Your task to perform on an android device: Clear the cart on ebay. Add usb-a to usb-b to the cart on ebay, then select checkout. Image 0: 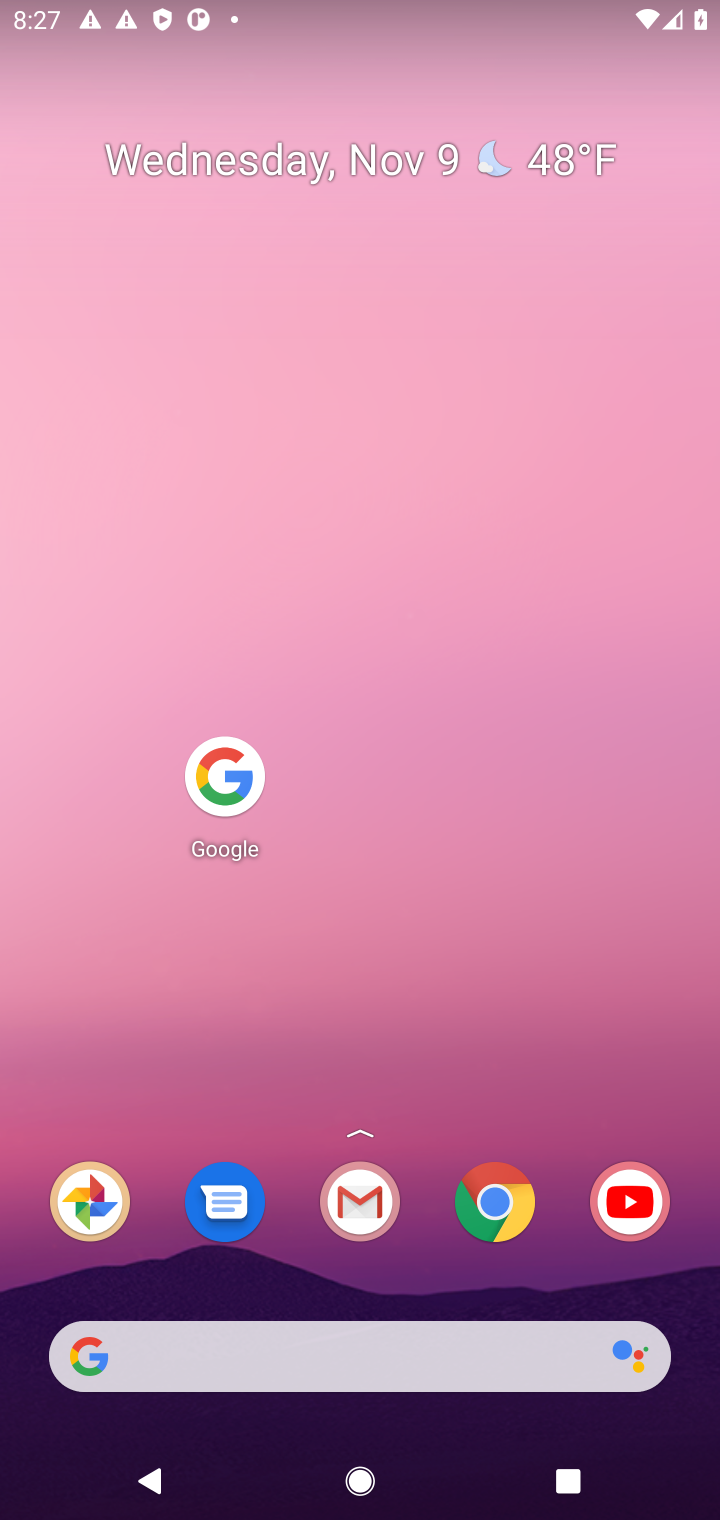
Step 0: click (207, 759)
Your task to perform on an android device: Clear the cart on ebay. Add usb-a to usb-b to the cart on ebay, then select checkout. Image 1: 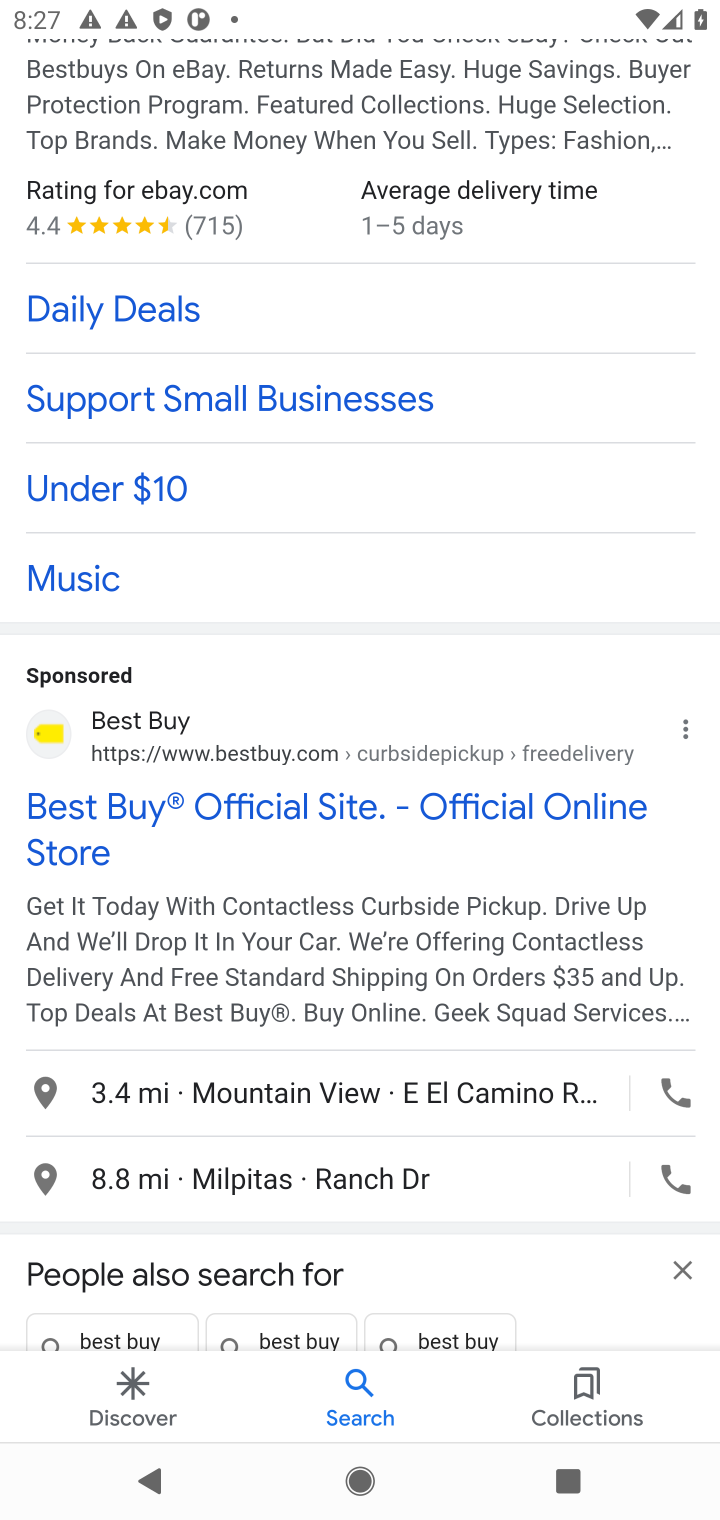
Step 1: drag from (545, 405) to (482, 1307)
Your task to perform on an android device: Clear the cart on ebay. Add usb-a to usb-b to the cart on ebay, then select checkout. Image 2: 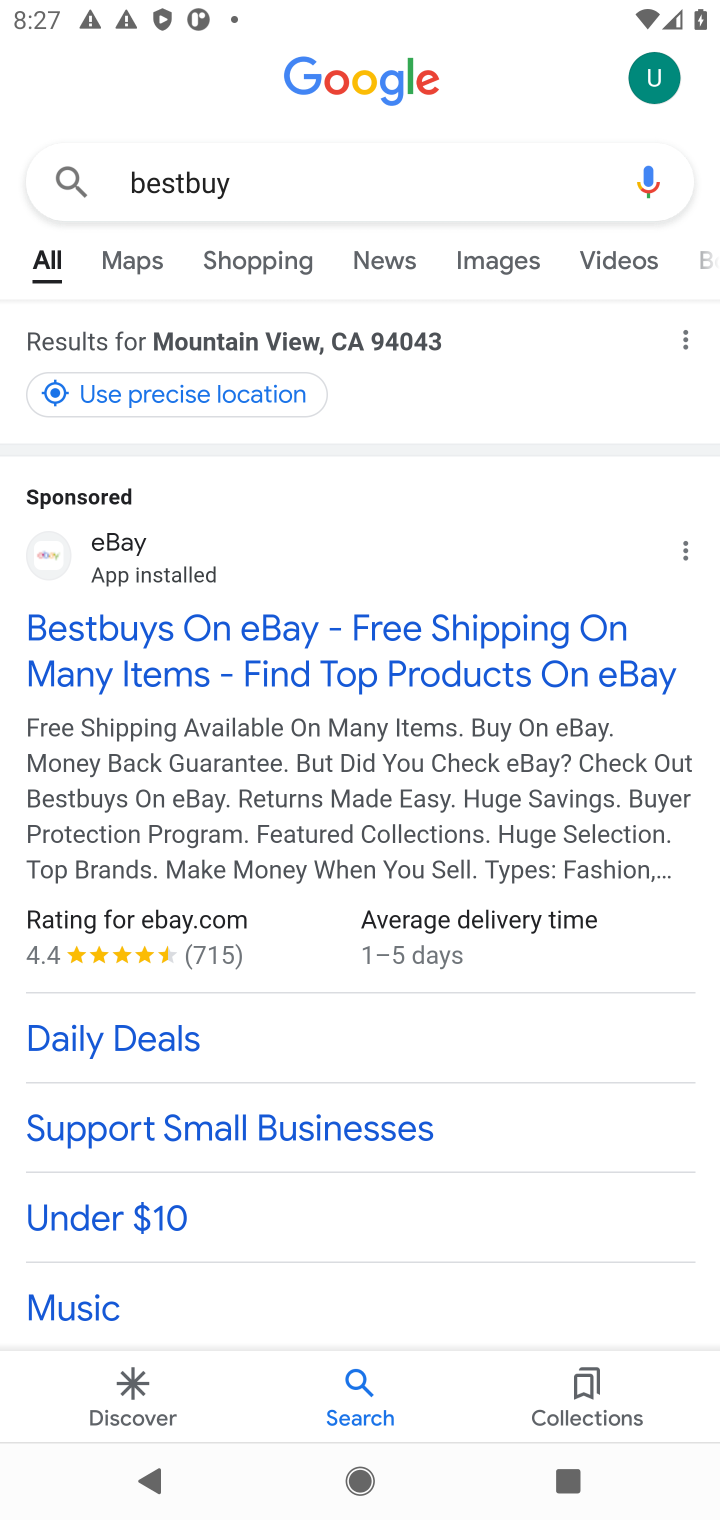
Step 2: click (241, 181)
Your task to perform on an android device: Clear the cart on ebay. Add usb-a to usb-b to the cart on ebay, then select checkout. Image 3: 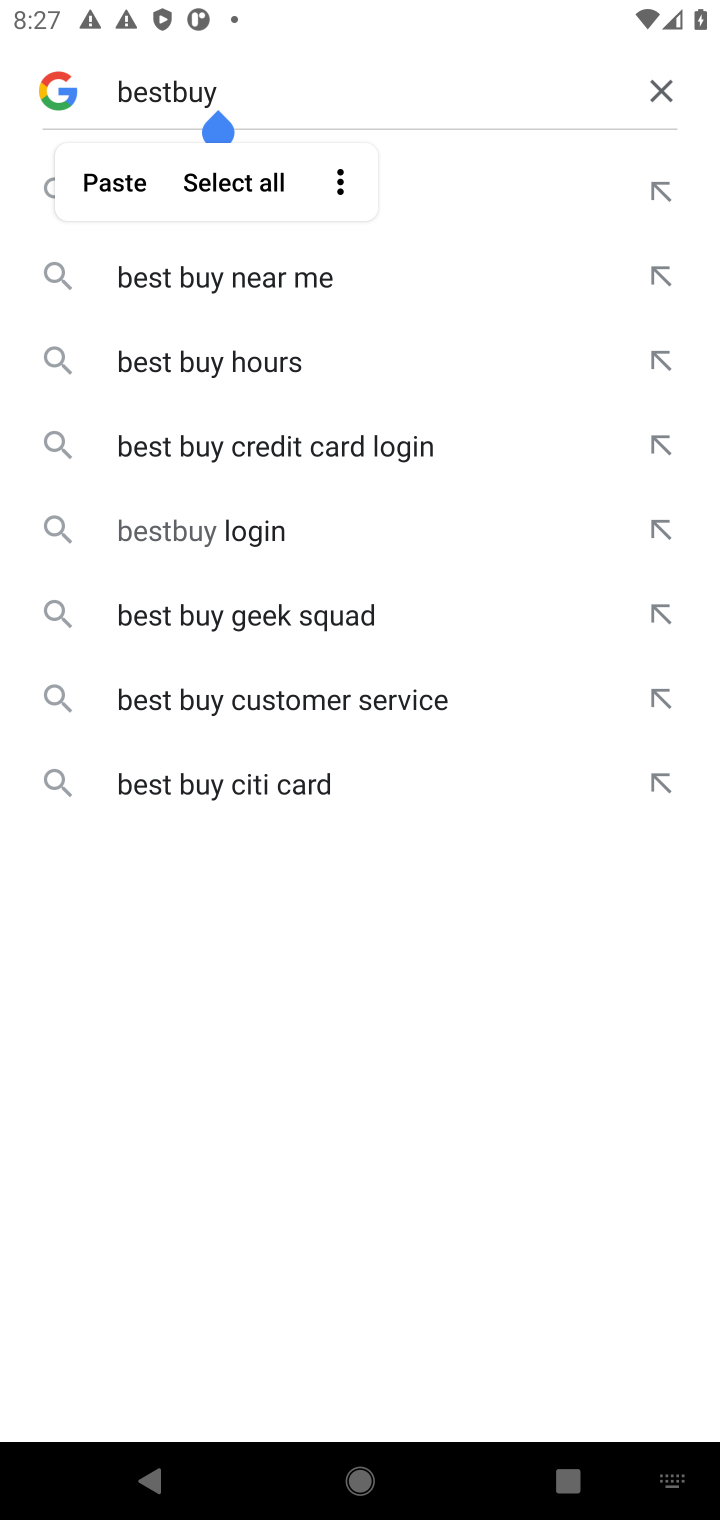
Step 3: click (663, 88)
Your task to perform on an android device: Clear the cart on ebay. Add usb-a to usb-b to the cart on ebay, then select checkout. Image 4: 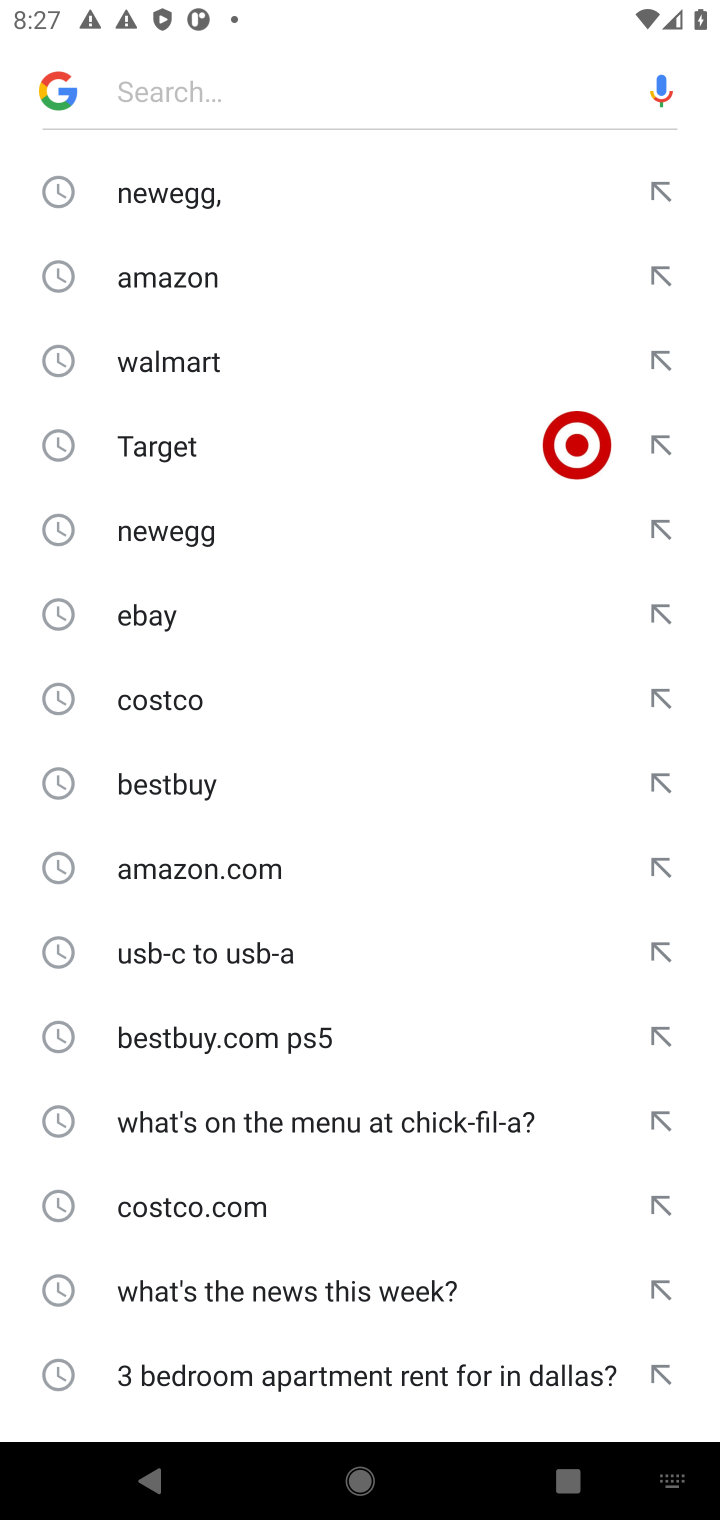
Step 4: click (144, 611)
Your task to perform on an android device: Clear the cart on ebay. Add usb-a to usb-b to the cart on ebay, then select checkout. Image 5: 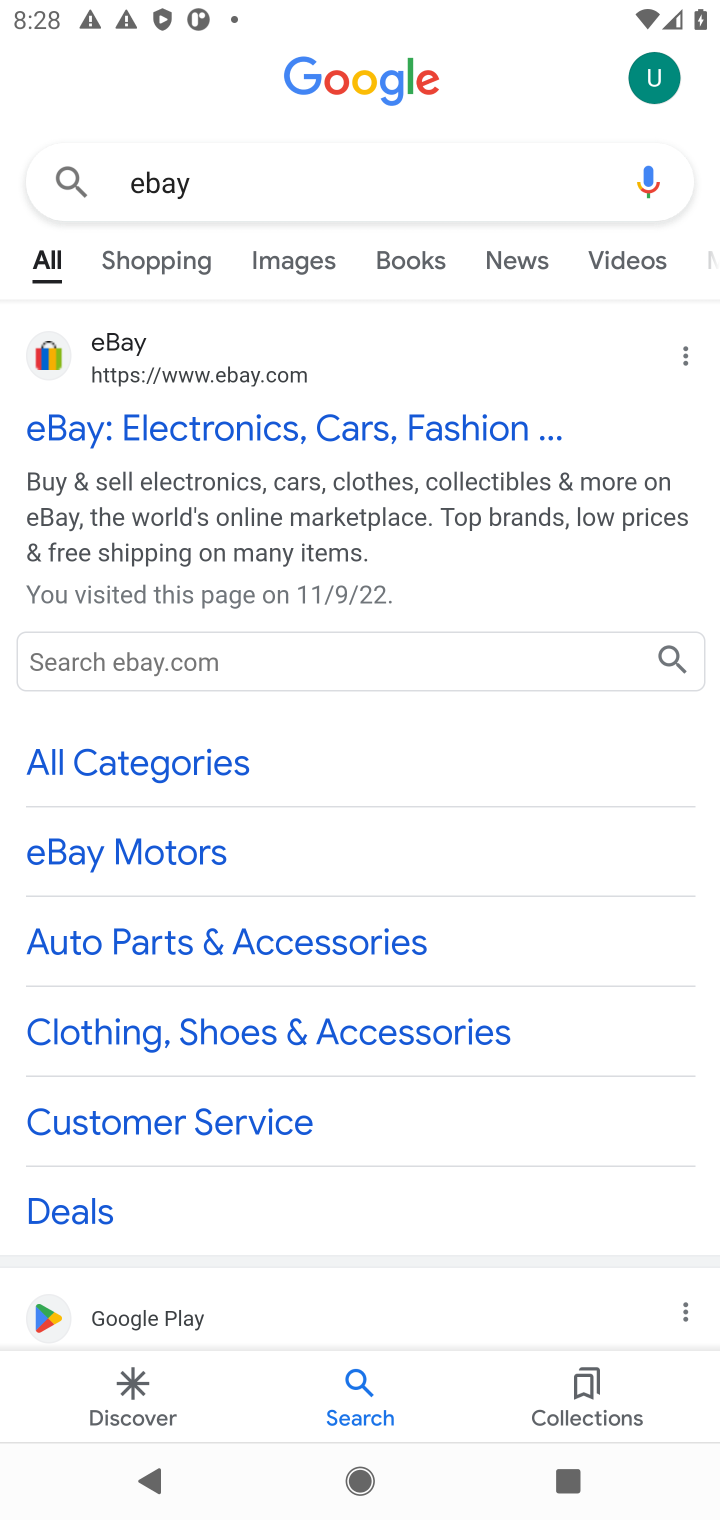
Step 5: click (226, 427)
Your task to perform on an android device: Clear the cart on ebay. Add usb-a to usb-b to the cart on ebay, then select checkout. Image 6: 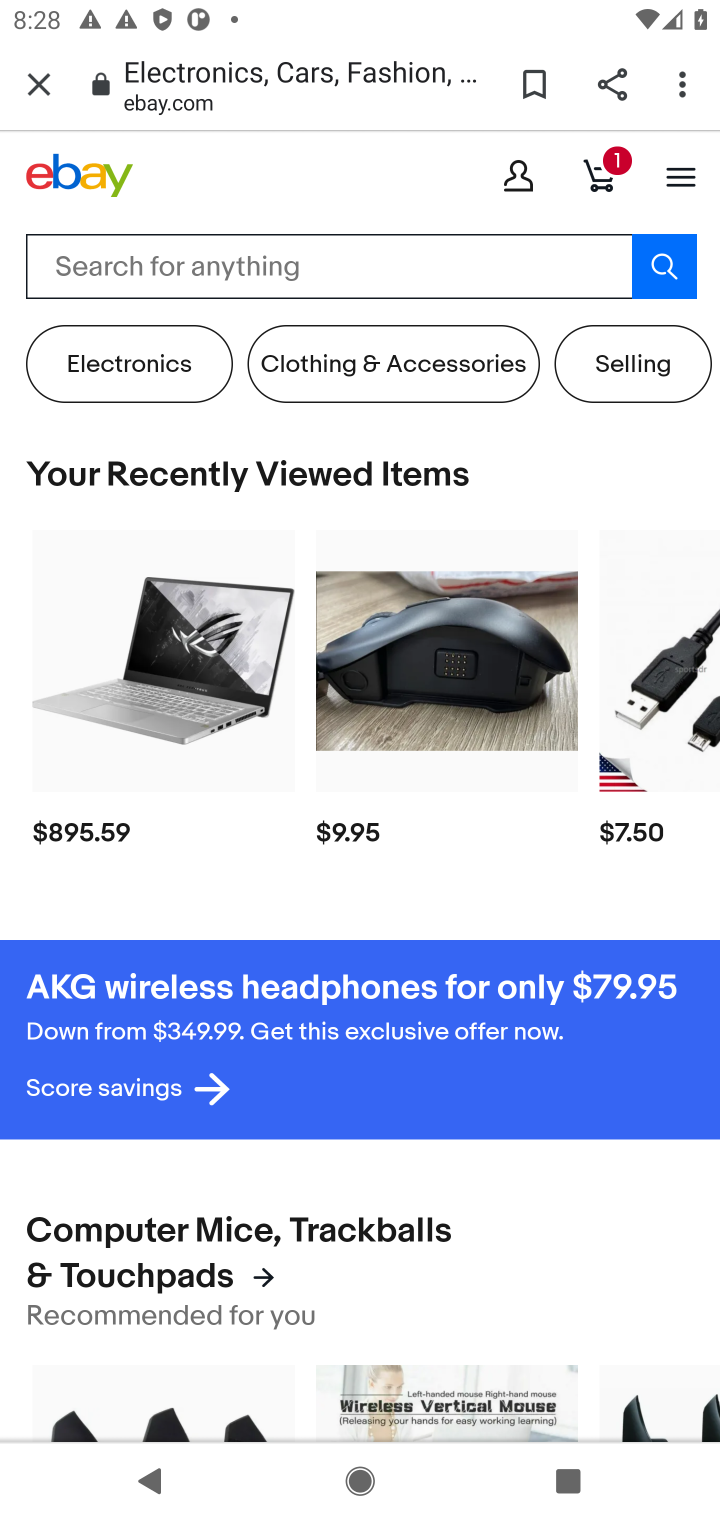
Step 6: click (168, 275)
Your task to perform on an android device: Clear the cart on ebay. Add usb-a to usb-b to the cart on ebay, then select checkout. Image 7: 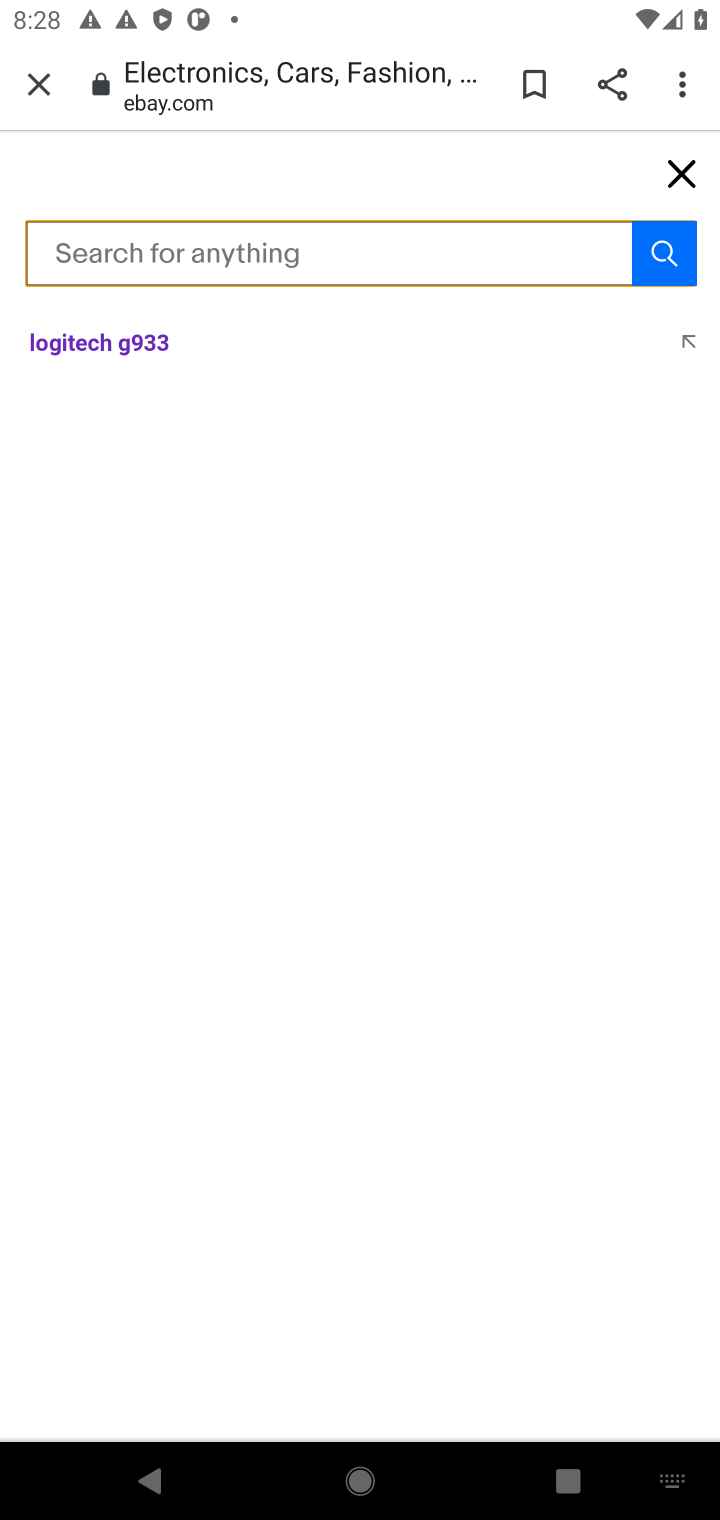
Step 7: type " usb-a to usb-b"
Your task to perform on an android device: Clear the cart on ebay. Add usb-a to usb-b to the cart on ebay, then select checkout. Image 8: 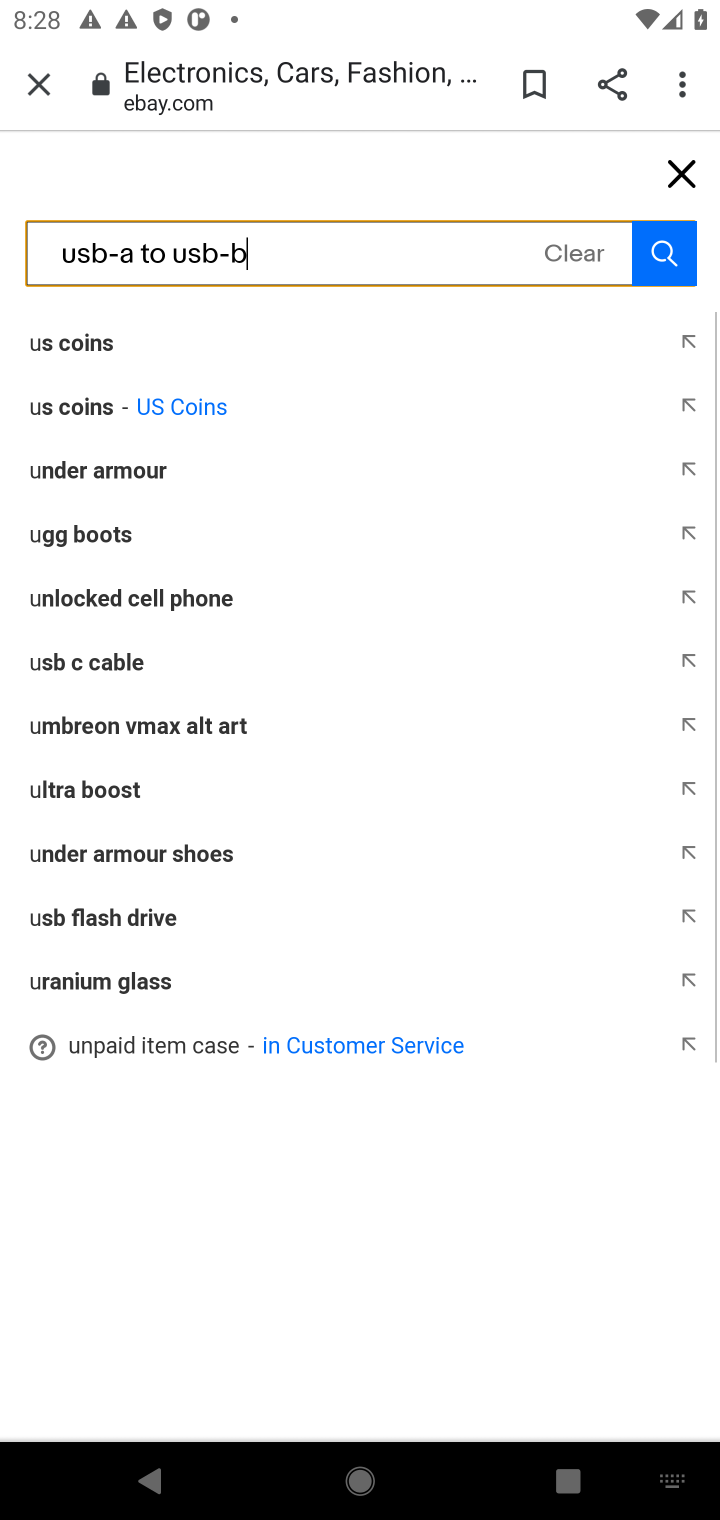
Step 8: press enter
Your task to perform on an android device: Clear the cart on ebay. Add usb-a to usb-b to the cart on ebay, then select checkout. Image 9: 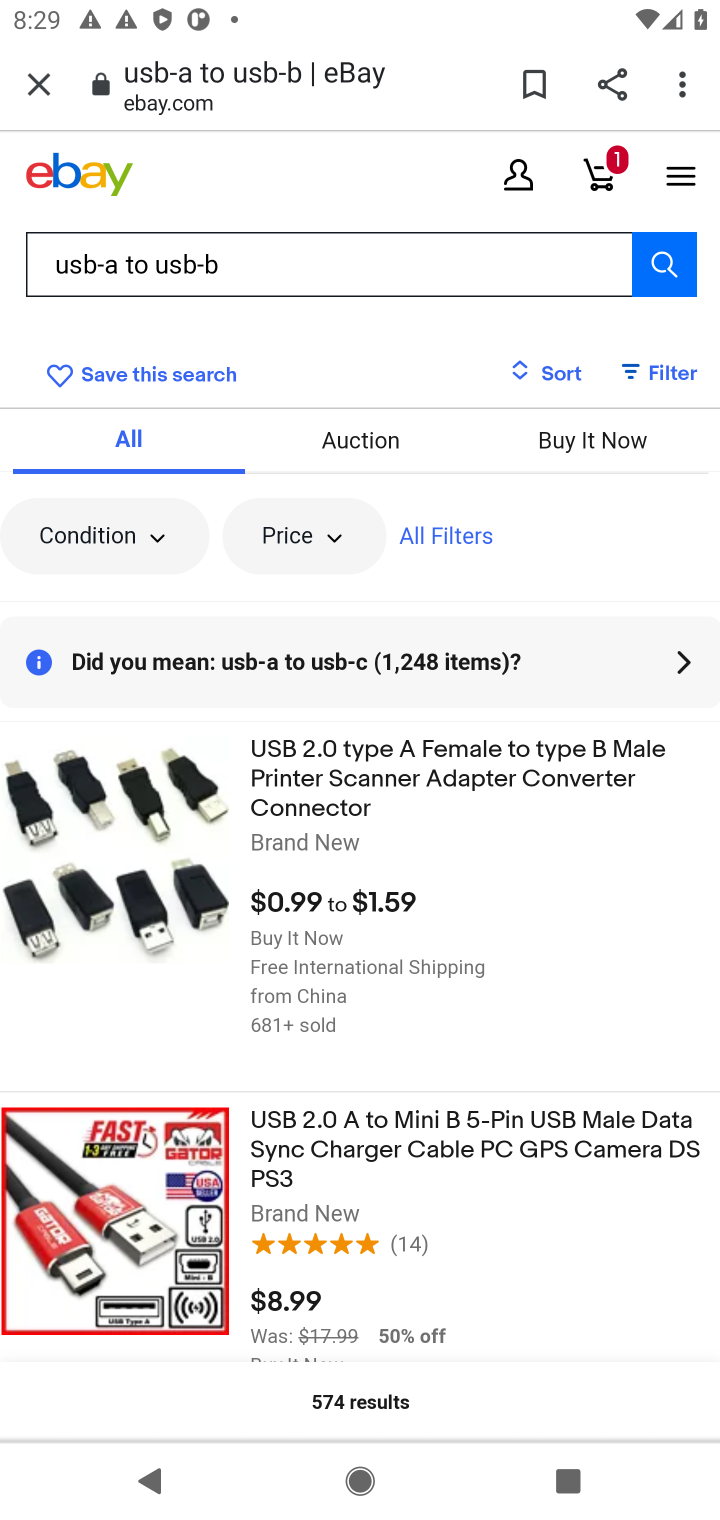
Step 9: drag from (470, 864) to (569, 640)
Your task to perform on an android device: Clear the cart on ebay. Add usb-a to usb-b to the cart on ebay, then select checkout. Image 10: 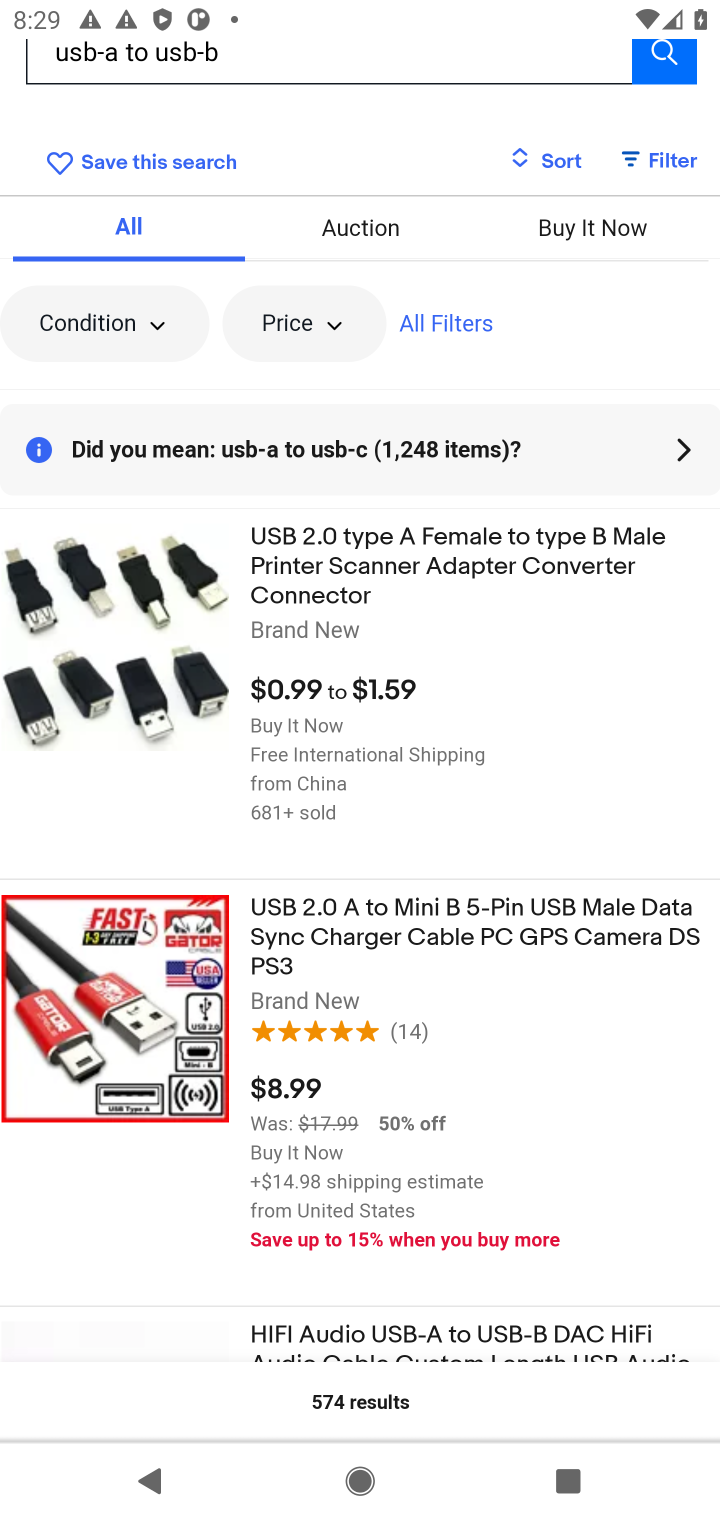
Step 10: click (485, 624)
Your task to perform on an android device: Clear the cart on ebay. Add usb-a to usb-b to the cart on ebay, then select checkout. Image 11: 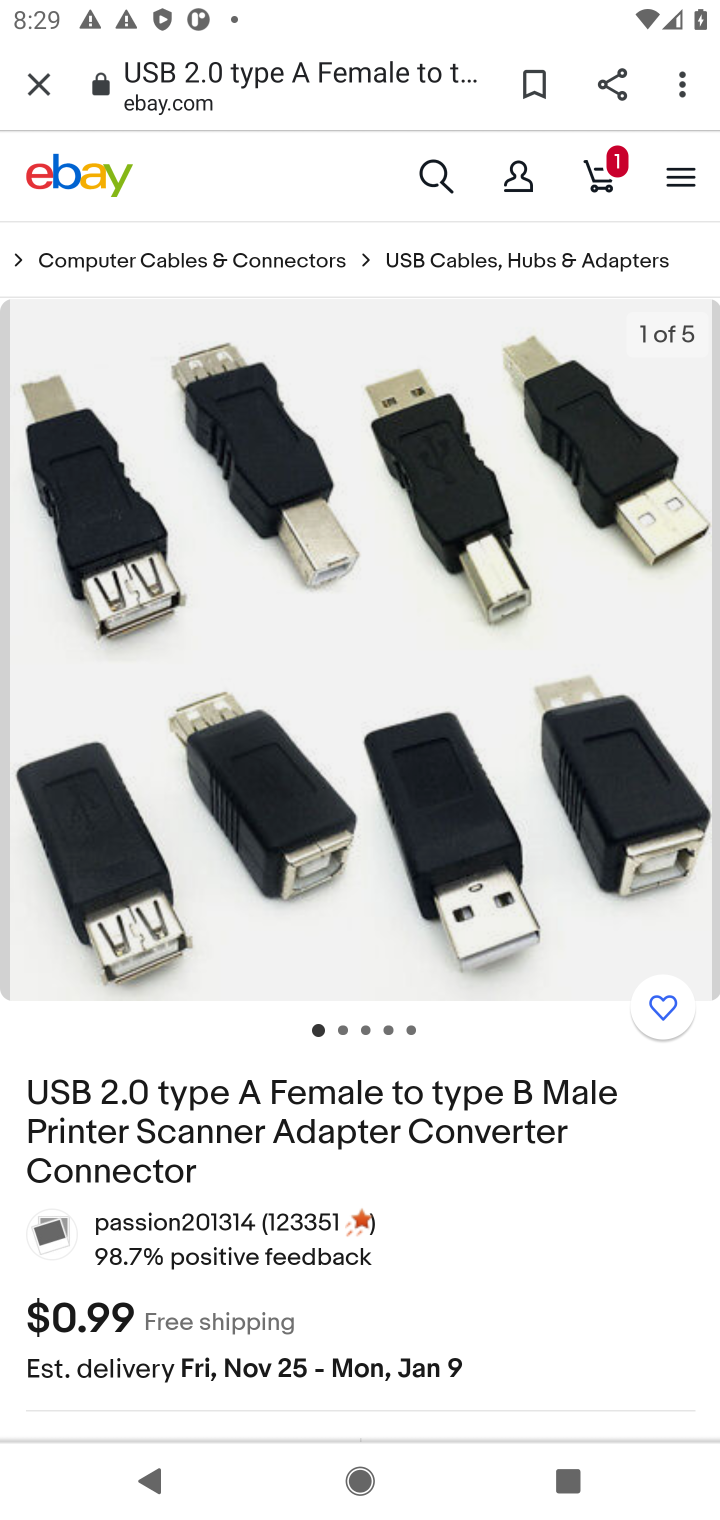
Step 11: drag from (392, 1298) to (523, 271)
Your task to perform on an android device: Clear the cart on ebay. Add usb-a to usb-b to the cart on ebay, then select checkout. Image 12: 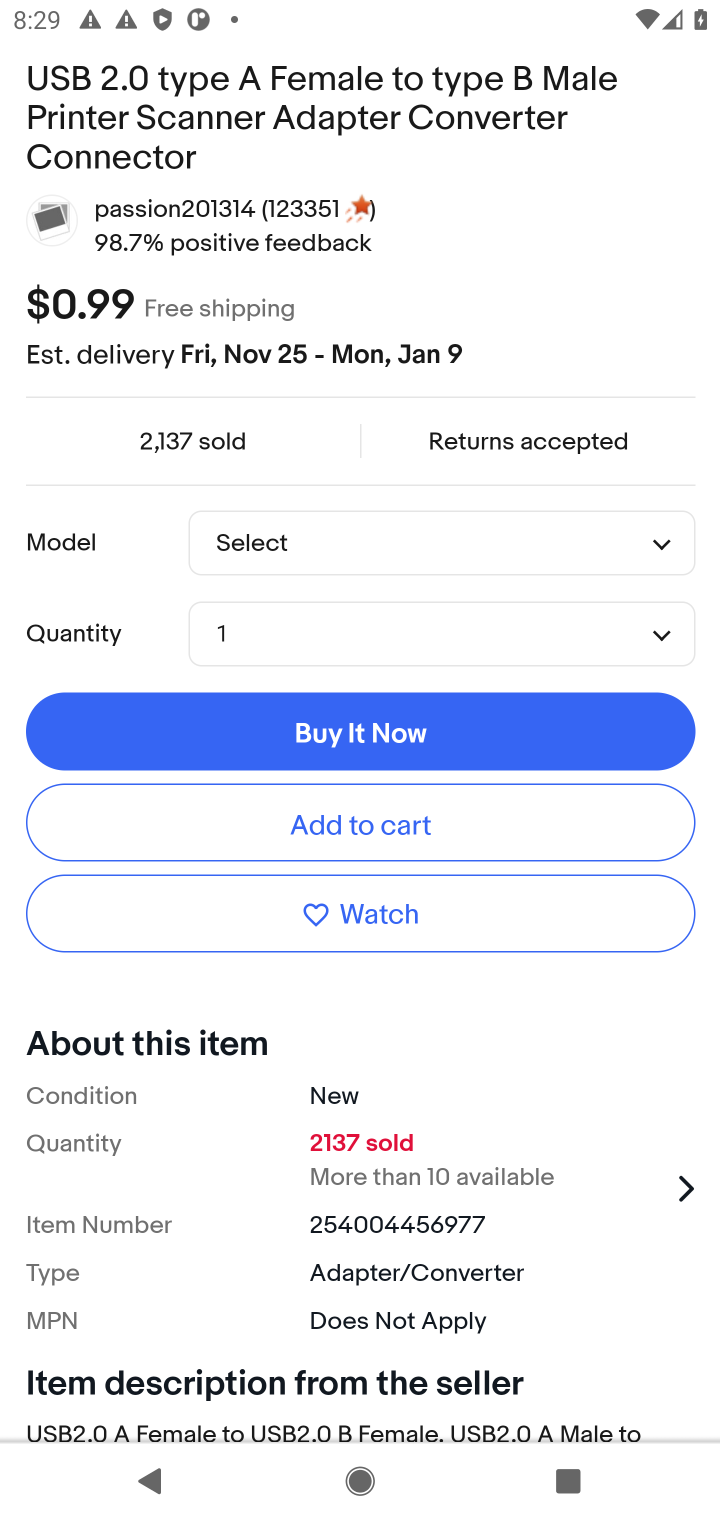
Step 12: click (405, 826)
Your task to perform on an android device: Clear the cart on ebay. Add usb-a to usb-b to the cart on ebay, then select checkout. Image 13: 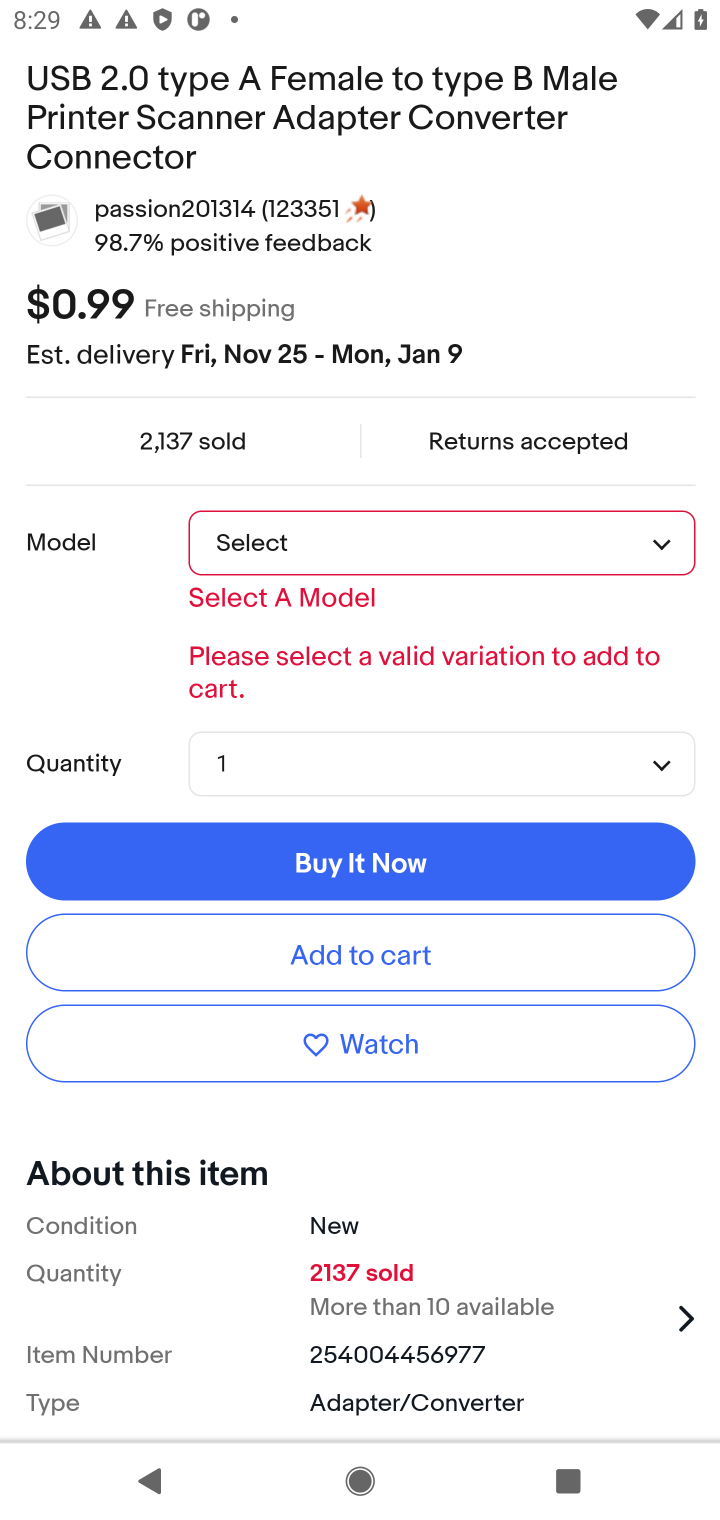
Step 13: click (651, 544)
Your task to perform on an android device: Clear the cart on ebay. Add usb-a to usb-b to the cart on ebay, then select checkout. Image 14: 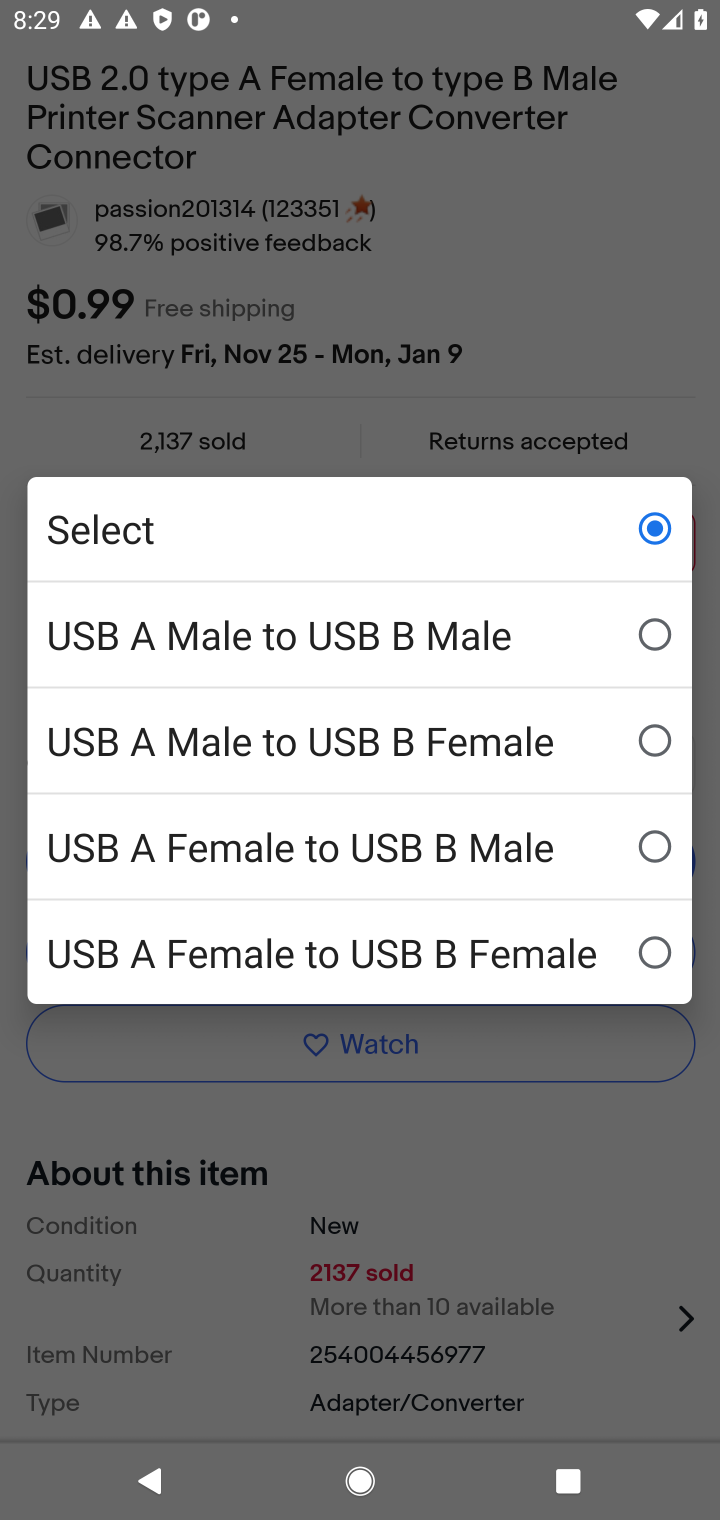
Step 14: click (650, 633)
Your task to perform on an android device: Clear the cart on ebay. Add usb-a to usb-b to the cart on ebay, then select checkout. Image 15: 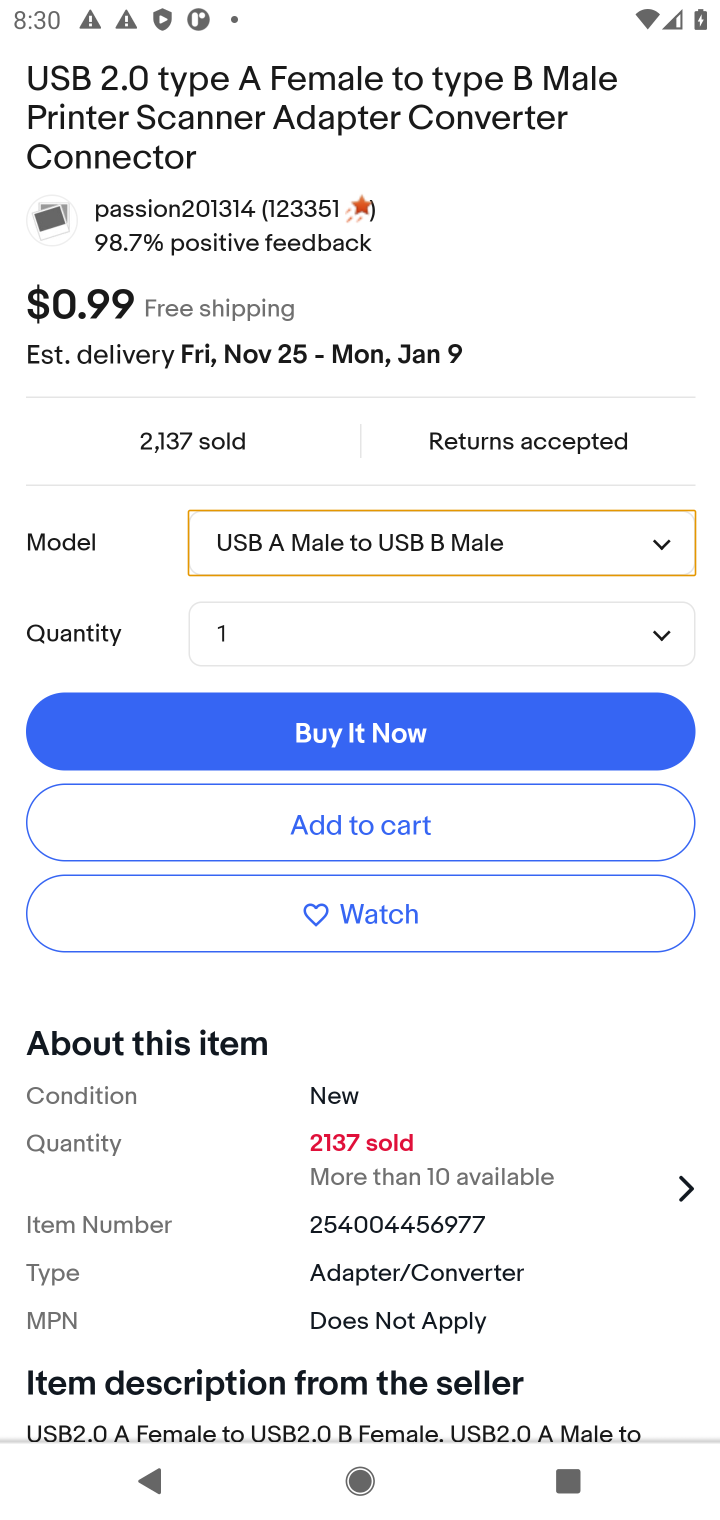
Step 15: click (363, 817)
Your task to perform on an android device: Clear the cart on ebay. Add usb-a to usb-b to the cart on ebay, then select checkout. Image 16: 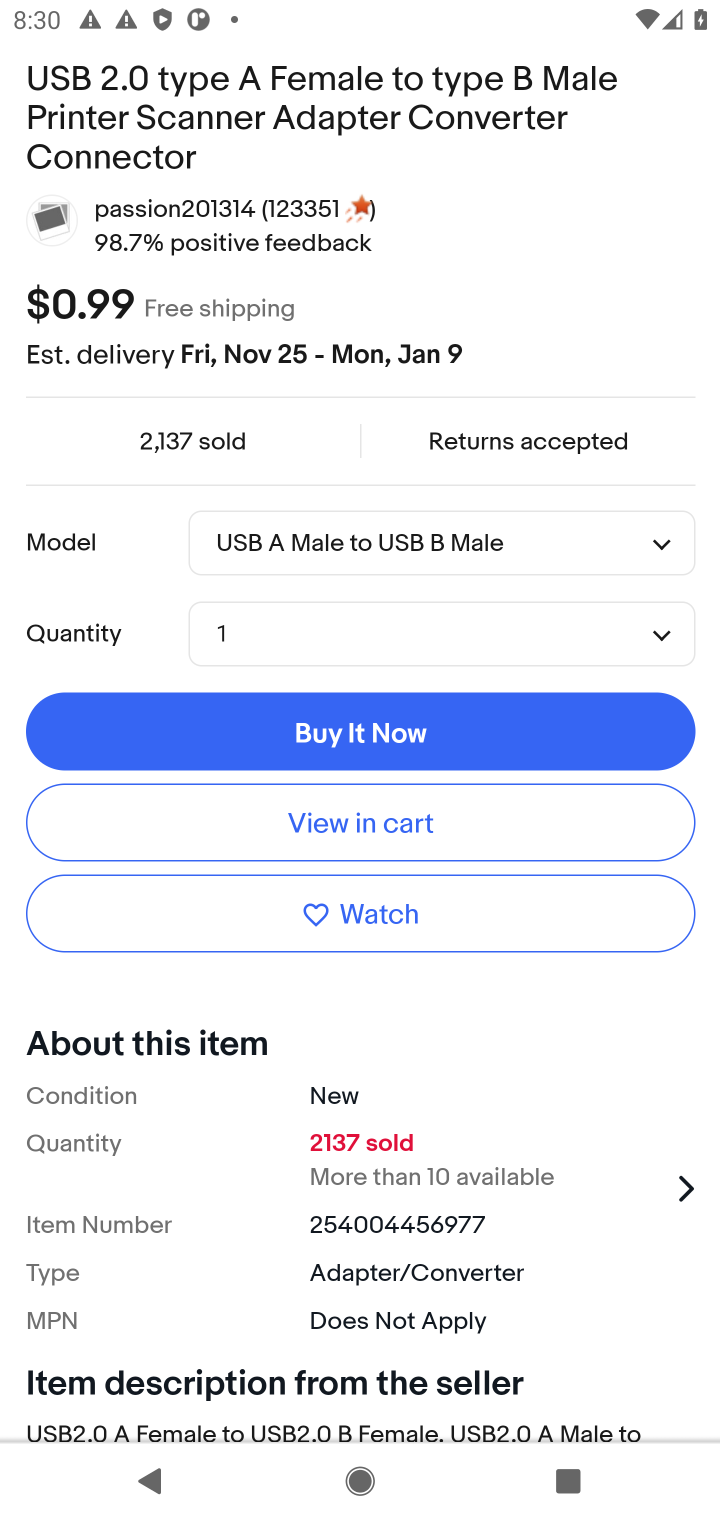
Step 16: click (369, 823)
Your task to perform on an android device: Clear the cart on ebay. Add usb-a to usb-b to the cart on ebay, then select checkout. Image 17: 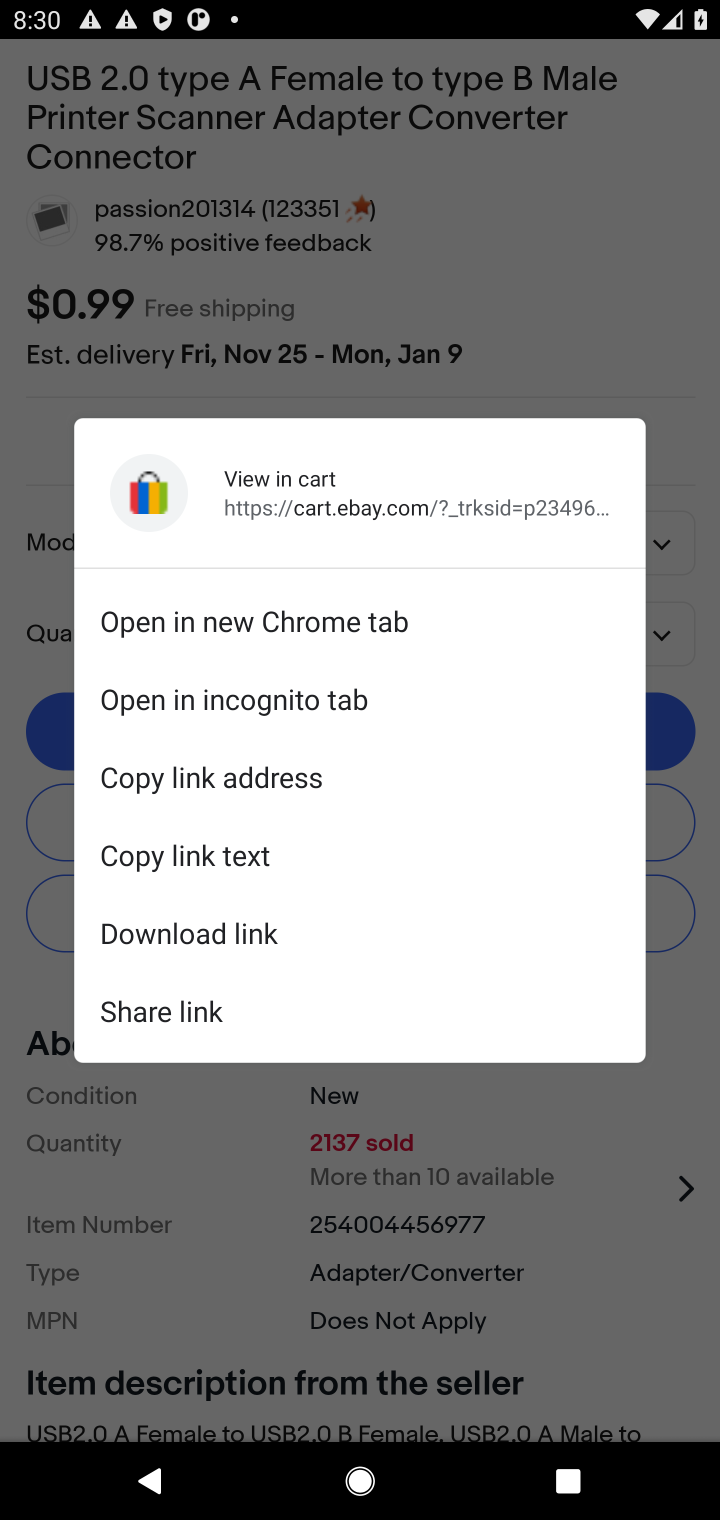
Step 17: click (651, 826)
Your task to perform on an android device: Clear the cart on ebay. Add usb-a to usb-b to the cart on ebay, then select checkout. Image 18: 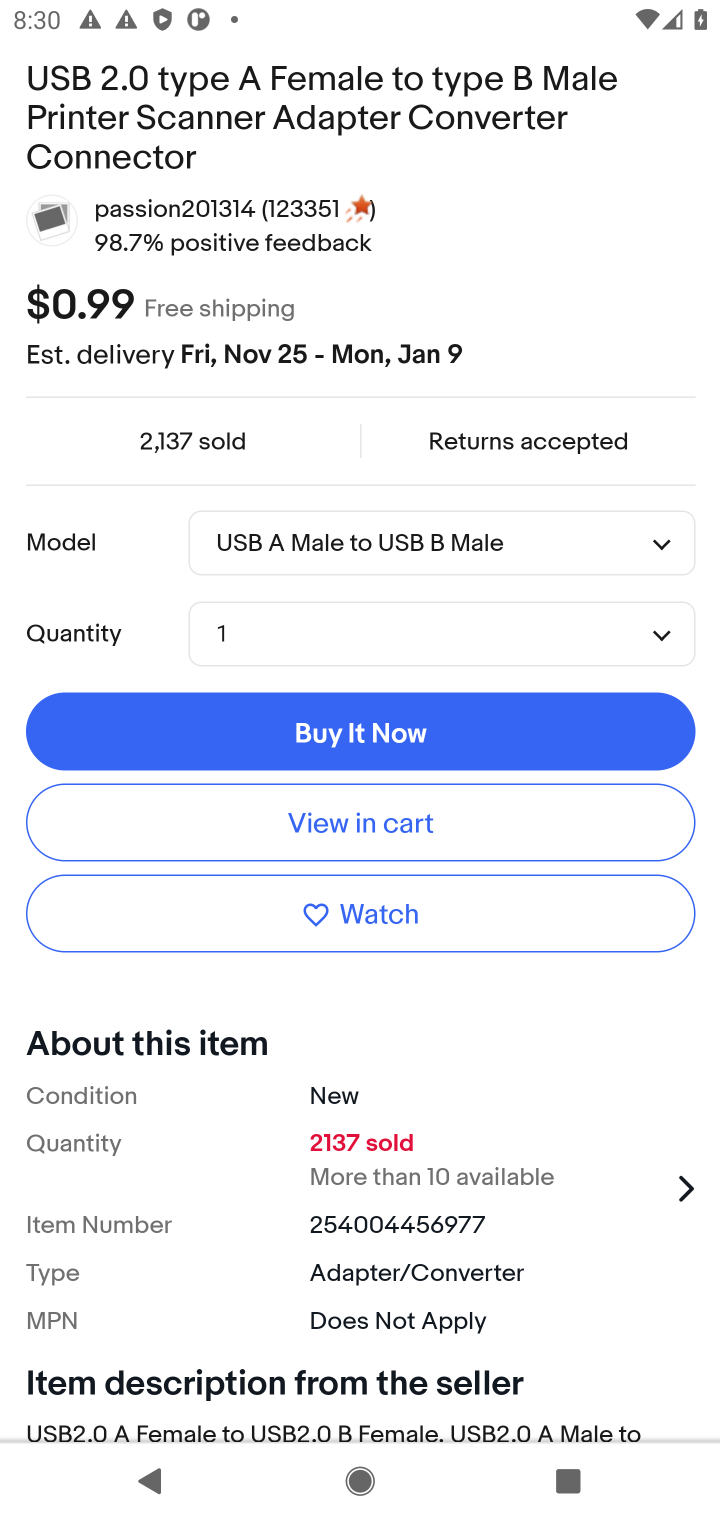
Step 18: click (403, 821)
Your task to perform on an android device: Clear the cart on ebay. Add usb-a to usb-b to the cart on ebay, then select checkout. Image 19: 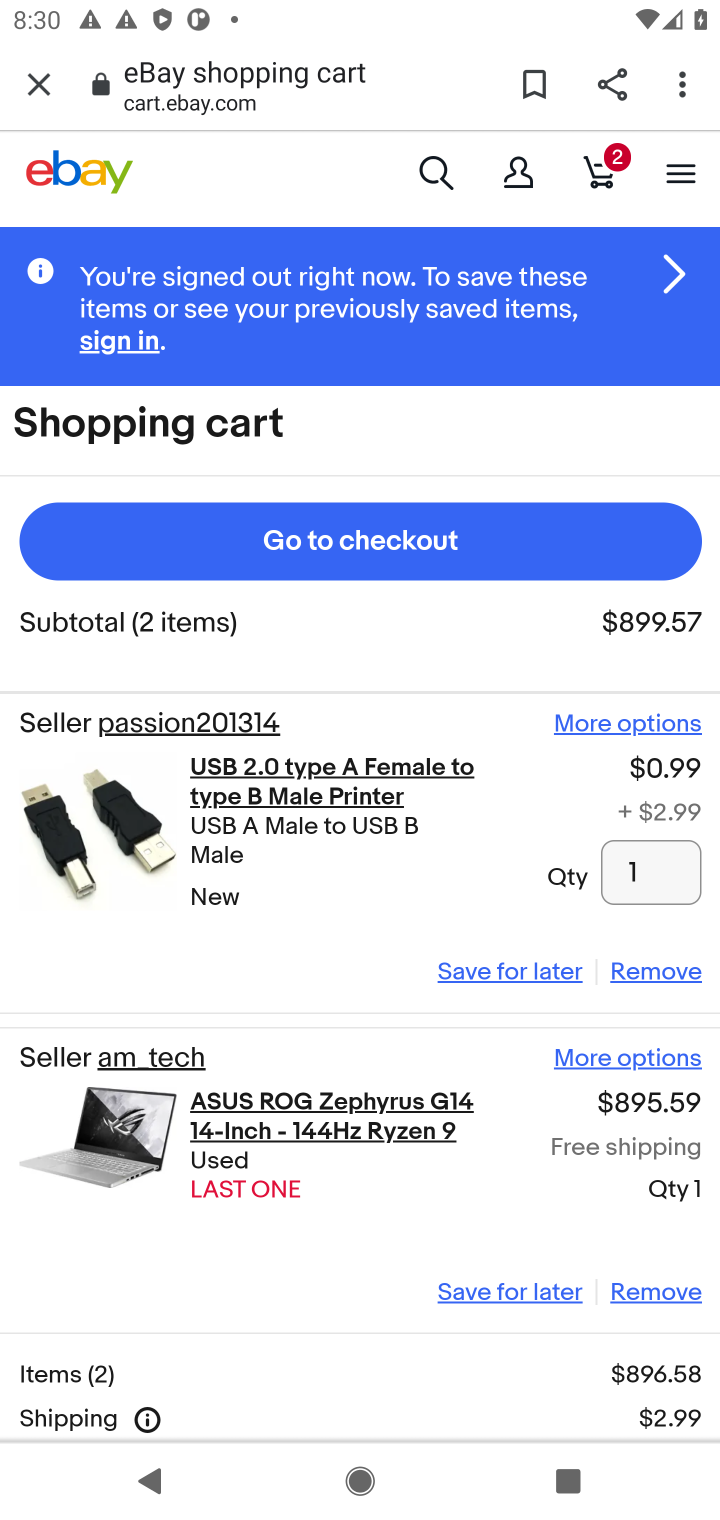
Step 19: click (673, 1286)
Your task to perform on an android device: Clear the cart on ebay. Add usb-a to usb-b to the cart on ebay, then select checkout. Image 20: 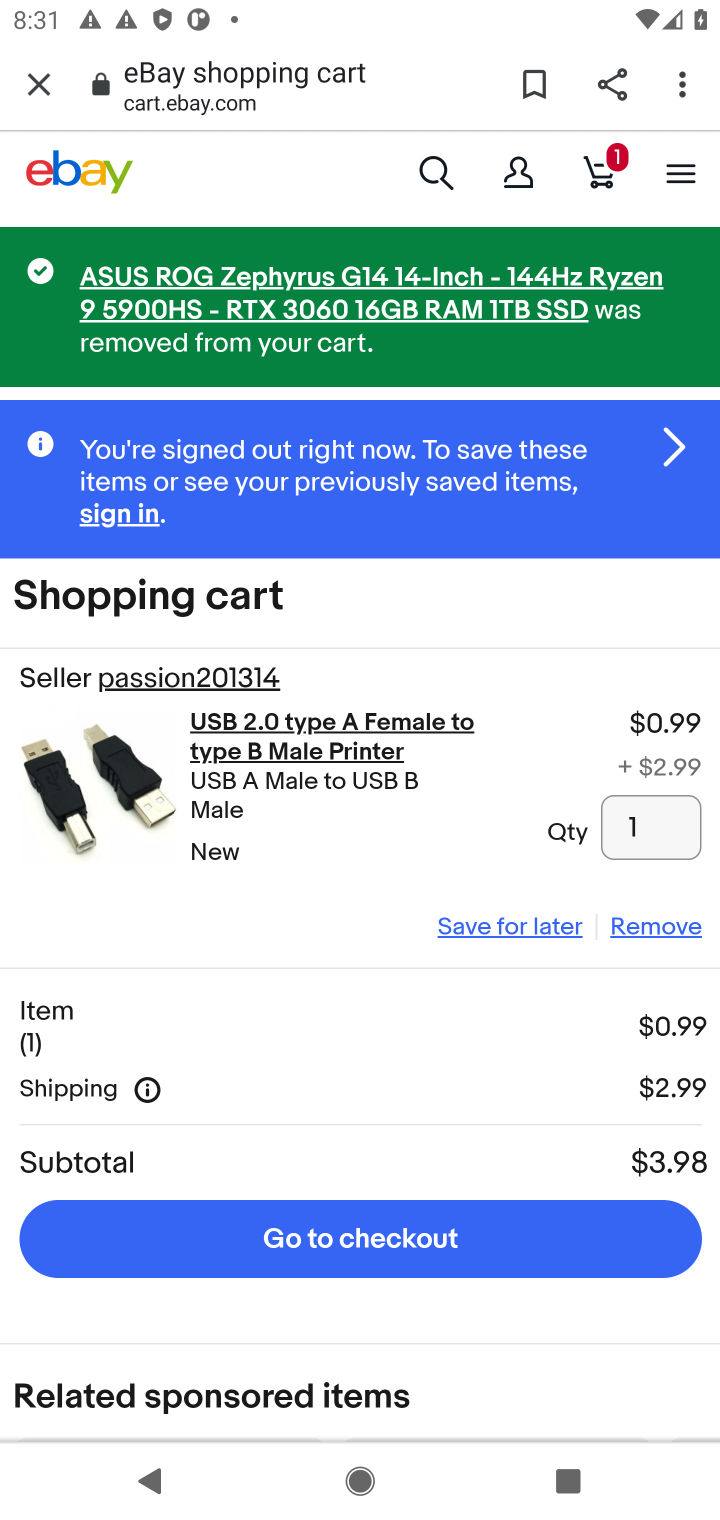
Step 20: click (384, 1234)
Your task to perform on an android device: Clear the cart on ebay. Add usb-a to usb-b to the cart on ebay, then select checkout. Image 21: 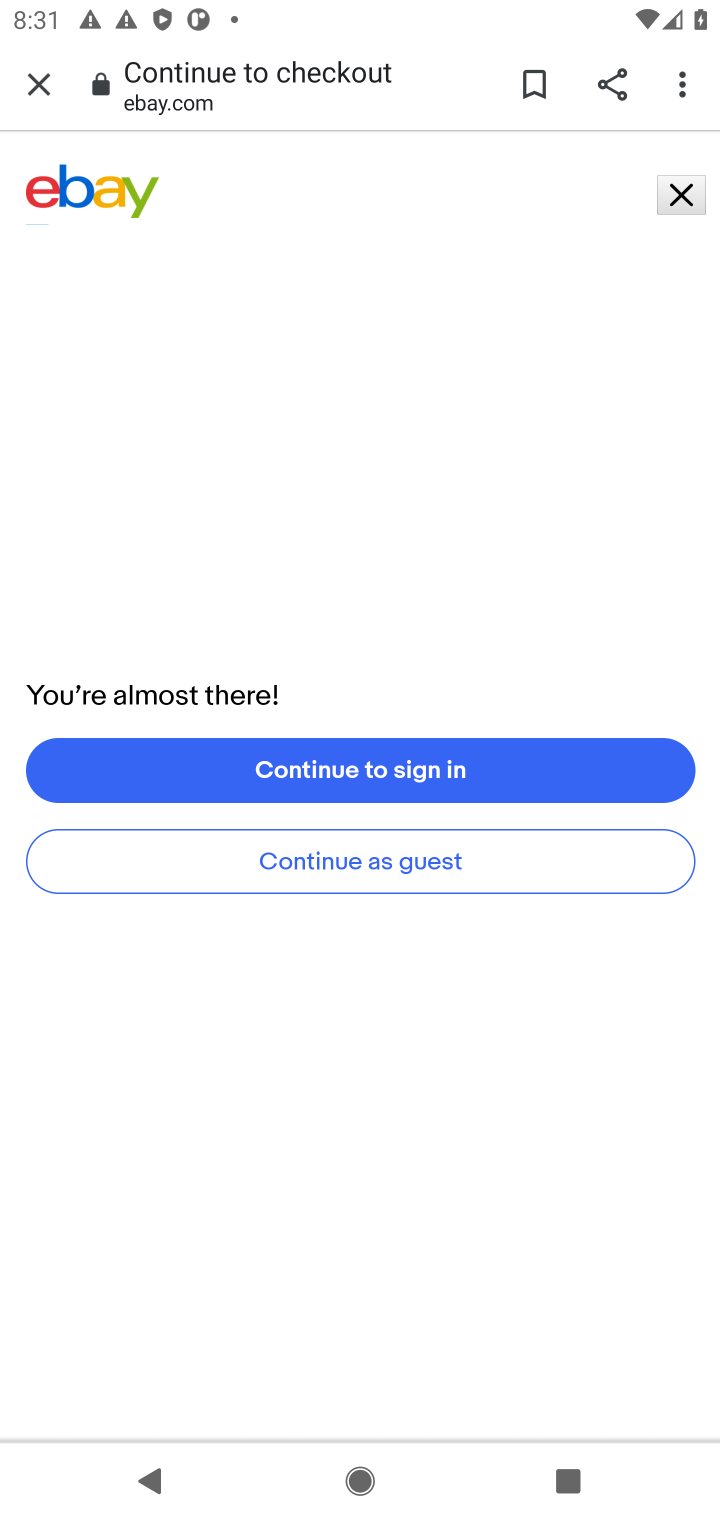
Step 21: task complete